Your task to perform on an android device: empty trash in google photos Image 0: 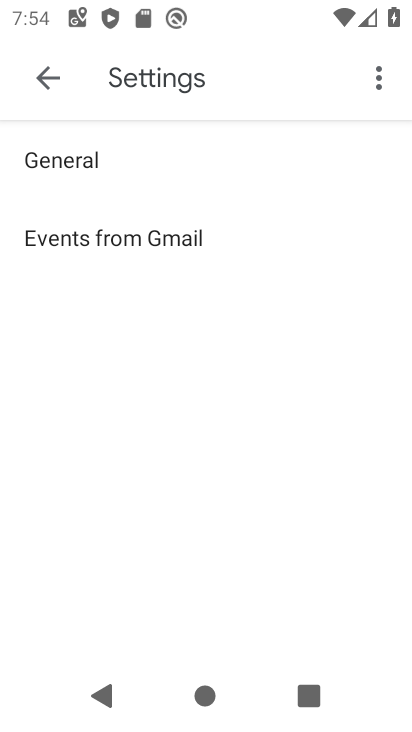
Step 0: press home button
Your task to perform on an android device: empty trash in google photos Image 1: 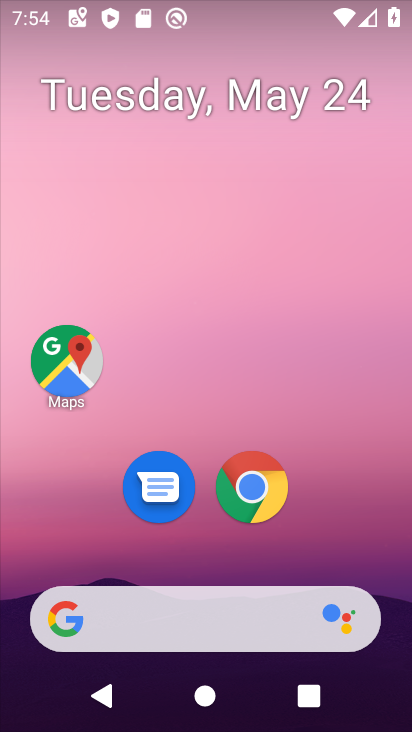
Step 1: drag from (32, 583) to (250, 138)
Your task to perform on an android device: empty trash in google photos Image 2: 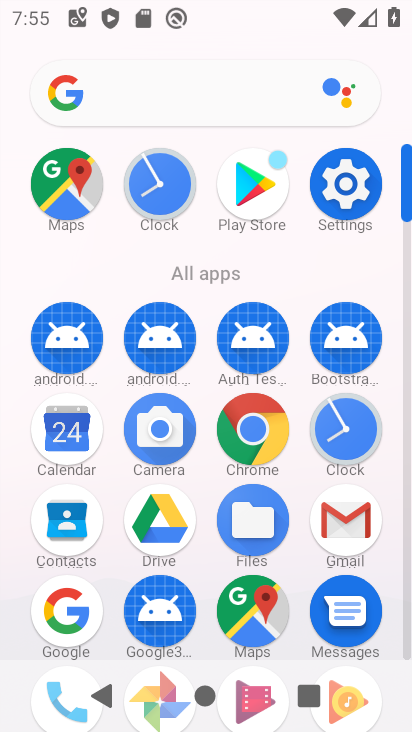
Step 2: drag from (21, 577) to (182, 227)
Your task to perform on an android device: empty trash in google photos Image 3: 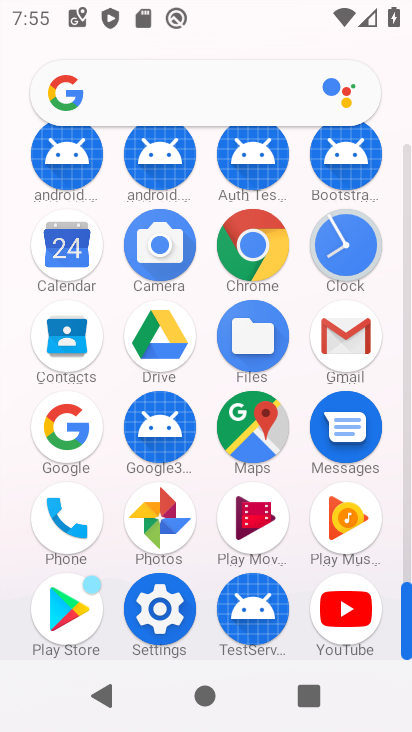
Step 3: click (156, 510)
Your task to perform on an android device: empty trash in google photos Image 4: 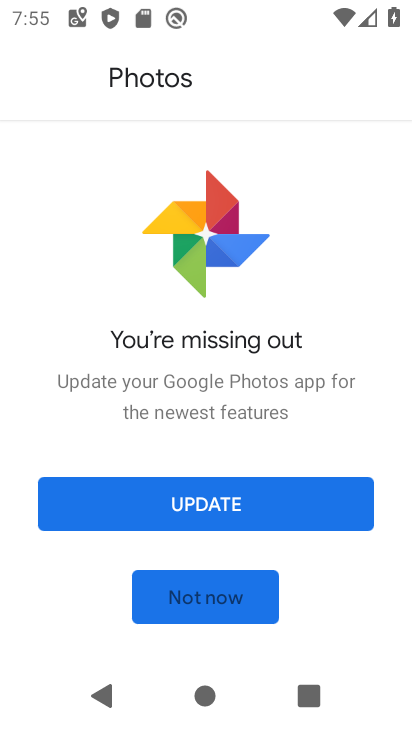
Step 4: click (258, 500)
Your task to perform on an android device: empty trash in google photos Image 5: 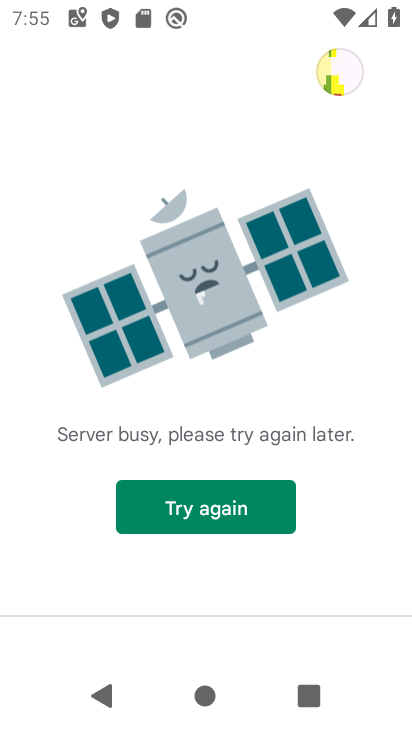
Step 5: click (224, 512)
Your task to perform on an android device: empty trash in google photos Image 6: 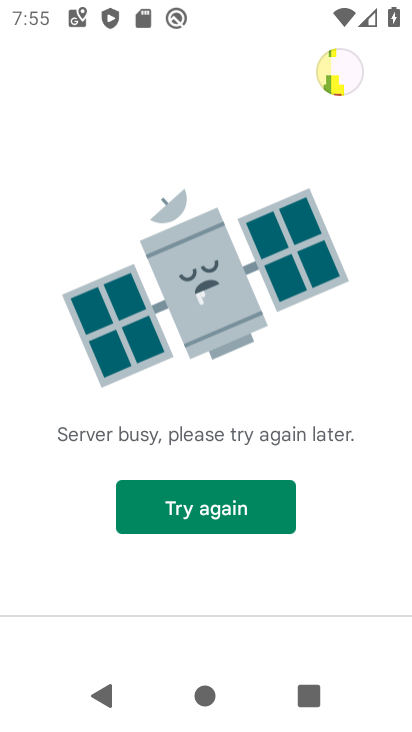
Step 6: press home button
Your task to perform on an android device: empty trash in google photos Image 7: 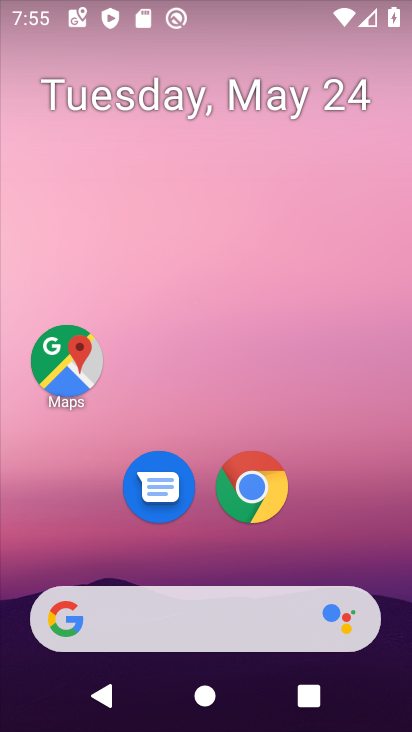
Step 7: drag from (25, 677) to (295, 24)
Your task to perform on an android device: empty trash in google photos Image 8: 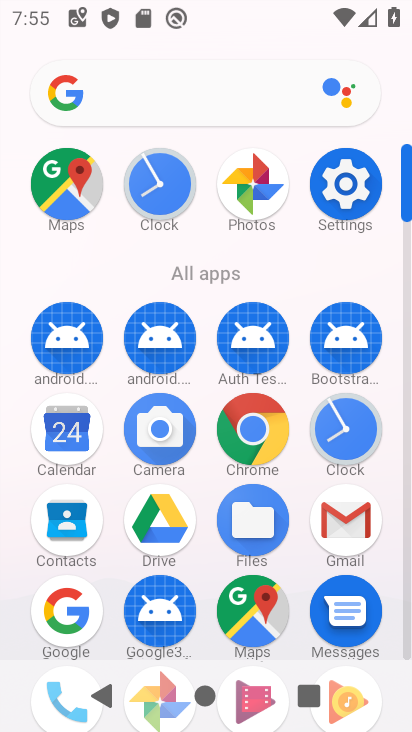
Step 8: click (242, 167)
Your task to perform on an android device: empty trash in google photos Image 9: 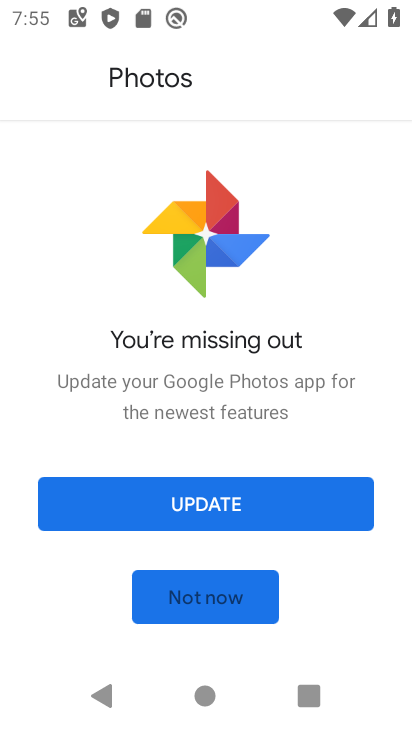
Step 9: click (184, 618)
Your task to perform on an android device: empty trash in google photos Image 10: 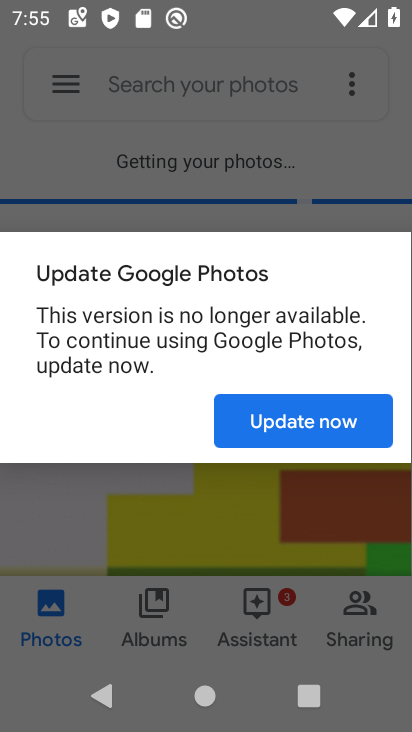
Step 10: click (267, 417)
Your task to perform on an android device: empty trash in google photos Image 11: 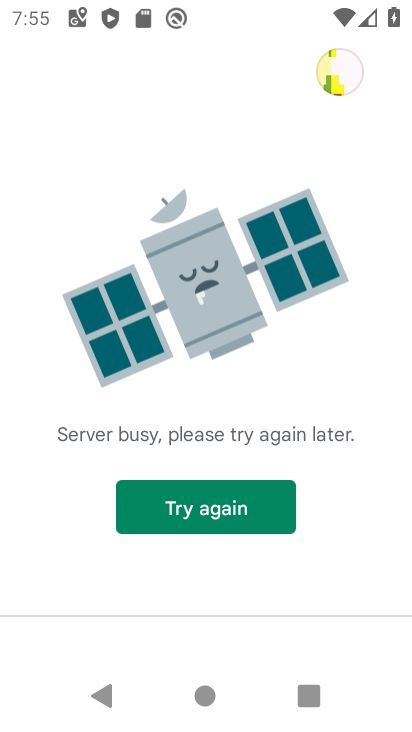
Step 11: click (117, 702)
Your task to perform on an android device: empty trash in google photos Image 12: 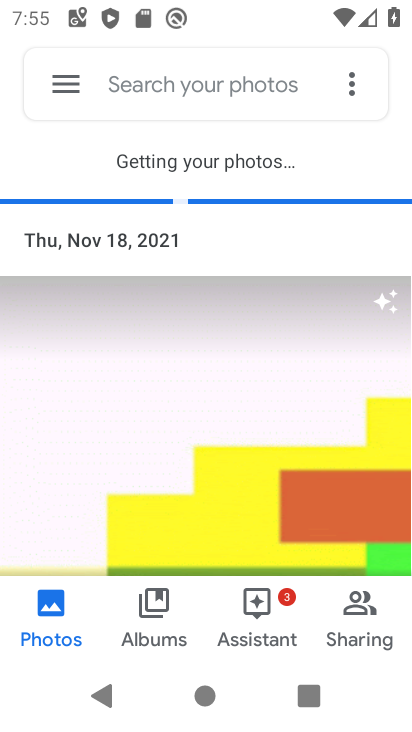
Step 12: click (50, 80)
Your task to perform on an android device: empty trash in google photos Image 13: 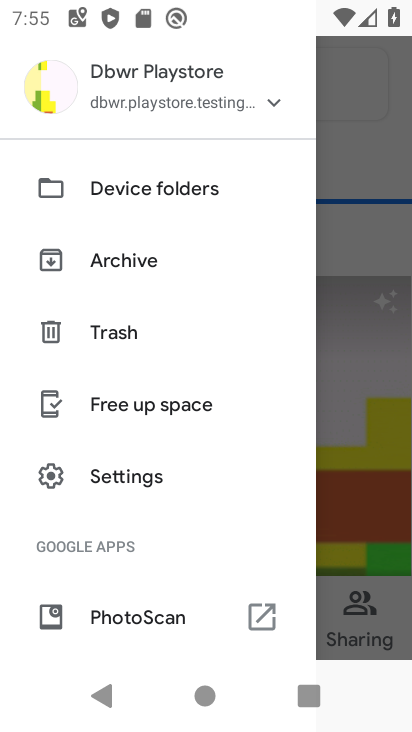
Step 13: click (110, 327)
Your task to perform on an android device: empty trash in google photos Image 14: 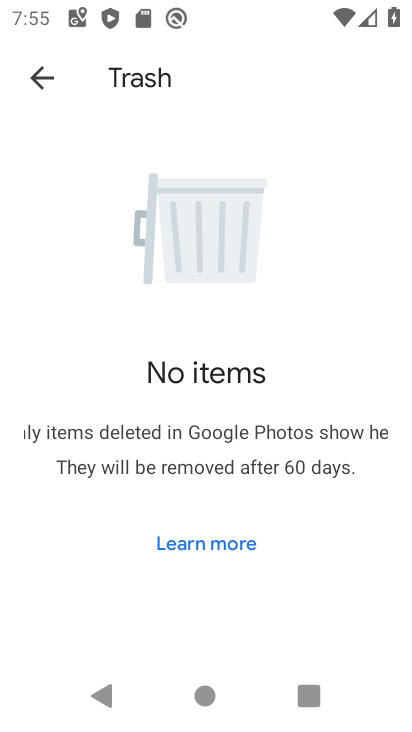
Step 14: task complete